Your task to perform on an android device: toggle notification dots Image 0: 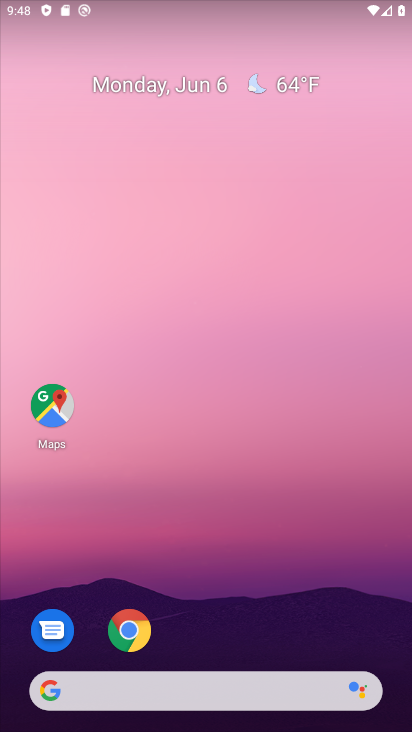
Step 0: drag from (166, 729) to (222, 84)
Your task to perform on an android device: toggle notification dots Image 1: 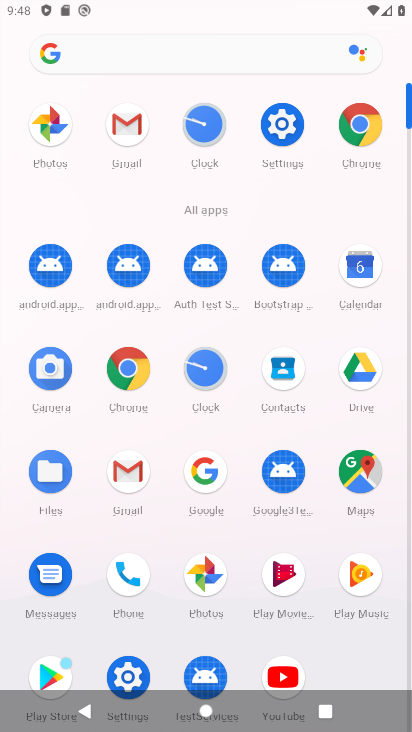
Step 1: click (291, 115)
Your task to perform on an android device: toggle notification dots Image 2: 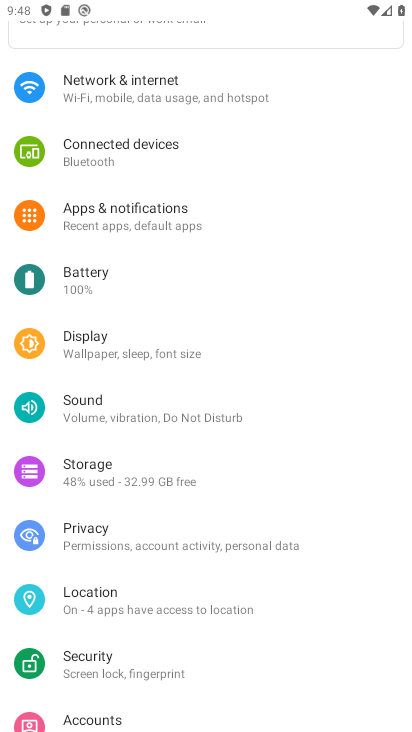
Step 2: click (152, 233)
Your task to perform on an android device: toggle notification dots Image 3: 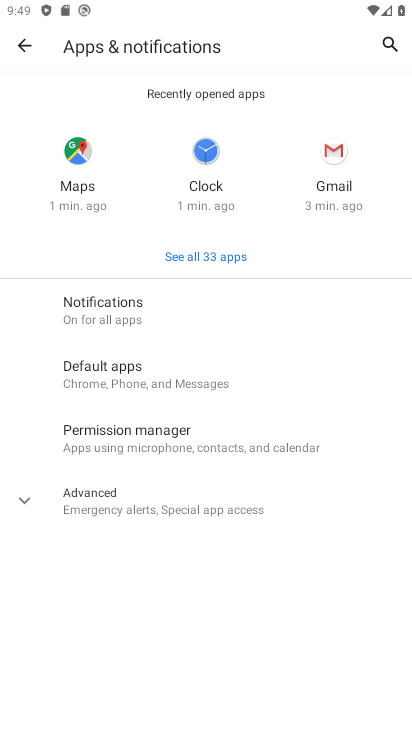
Step 3: click (150, 326)
Your task to perform on an android device: toggle notification dots Image 4: 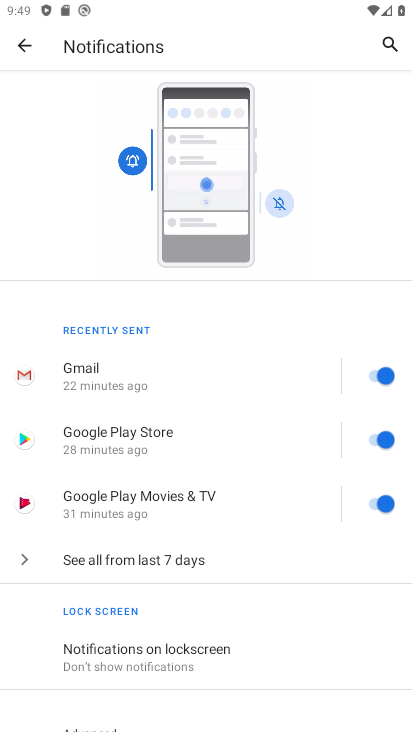
Step 4: drag from (206, 690) to (226, 341)
Your task to perform on an android device: toggle notification dots Image 5: 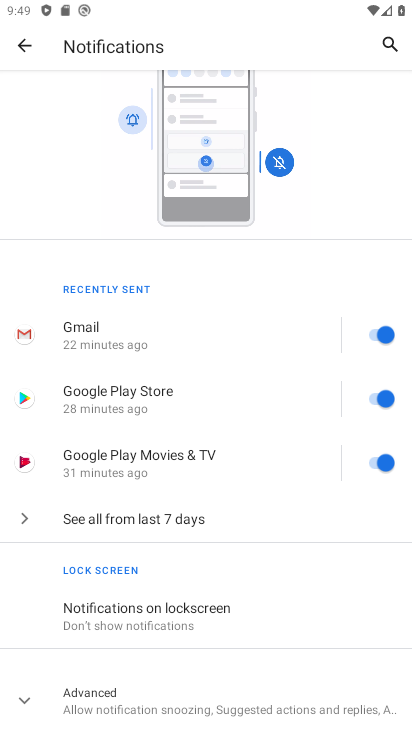
Step 5: click (163, 708)
Your task to perform on an android device: toggle notification dots Image 6: 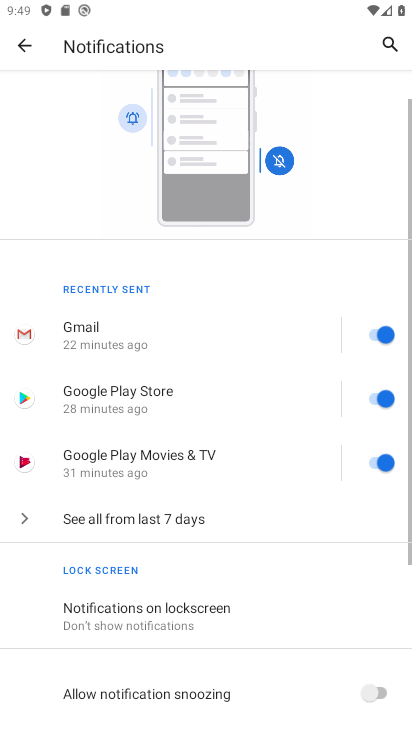
Step 6: drag from (235, 671) to (286, 348)
Your task to perform on an android device: toggle notification dots Image 7: 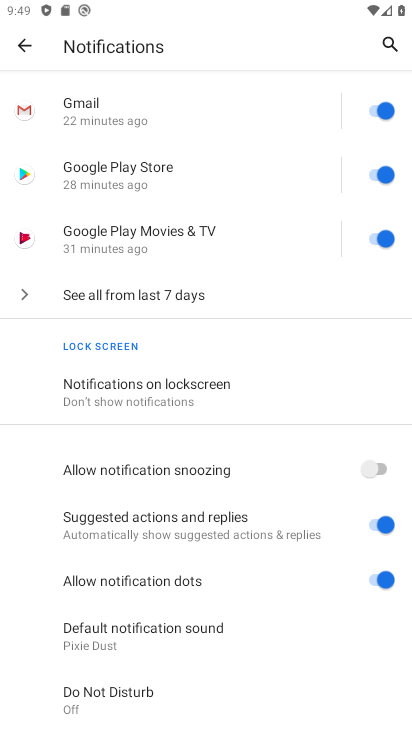
Step 7: click (383, 589)
Your task to perform on an android device: toggle notification dots Image 8: 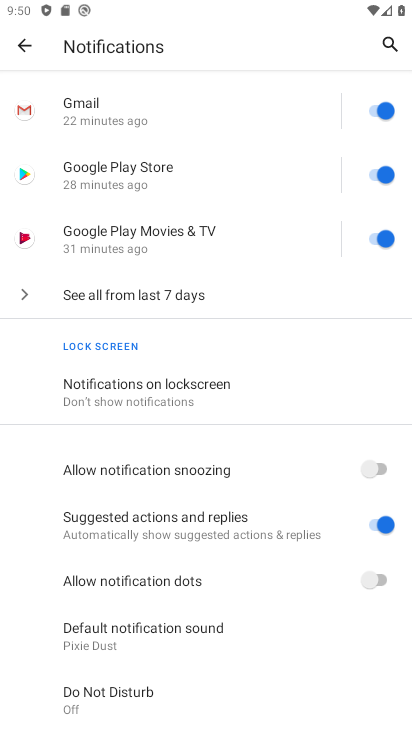
Step 8: task complete